Your task to perform on an android device: Set the phone to "Do not disturb". Image 0: 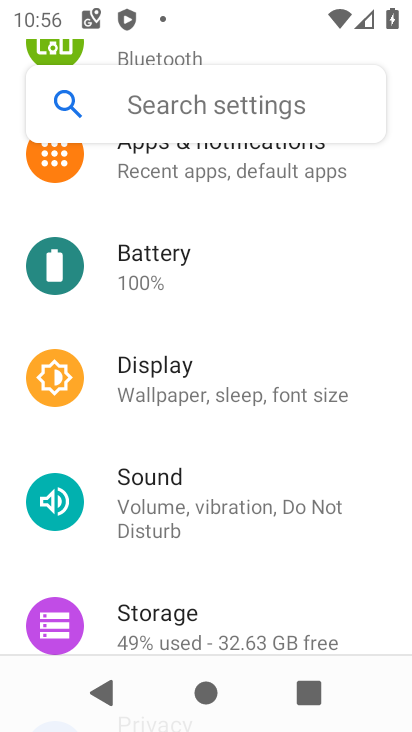
Step 0: click (231, 110)
Your task to perform on an android device: Set the phone to "Do not disturb". Image 1: 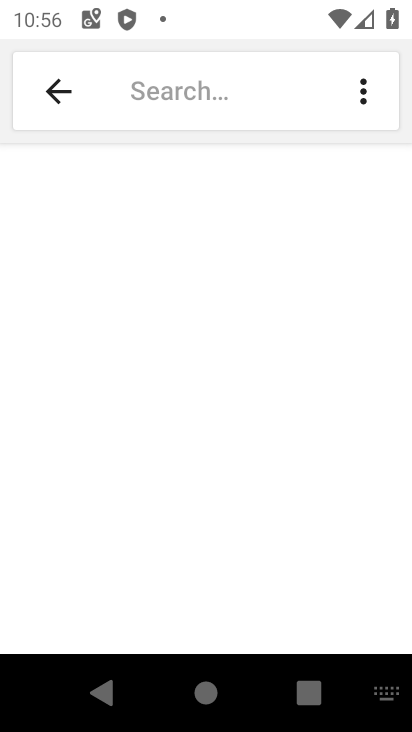
Step 1: click (71, 91)
Your task to perform on an android device: Set the phone to "Do not disturb". Image 2: 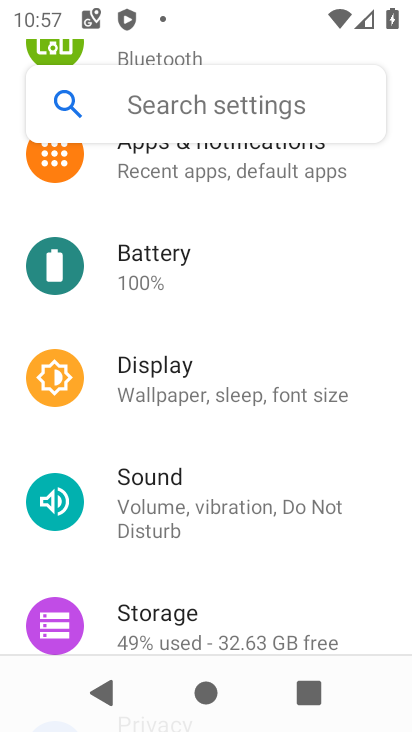
Step 2: drag from (236, 187) to (194, 614)
Your task to perform on an android device: Set the phone to "Do not disturb". Image 3: 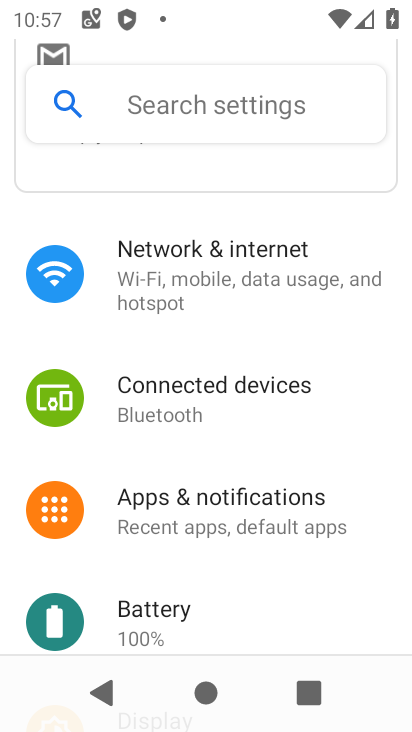
Step 3: drag from (234, 618) to (203, 344)
Your task to perform on an android device: Set the phone to "Do not disturb". Image 4: 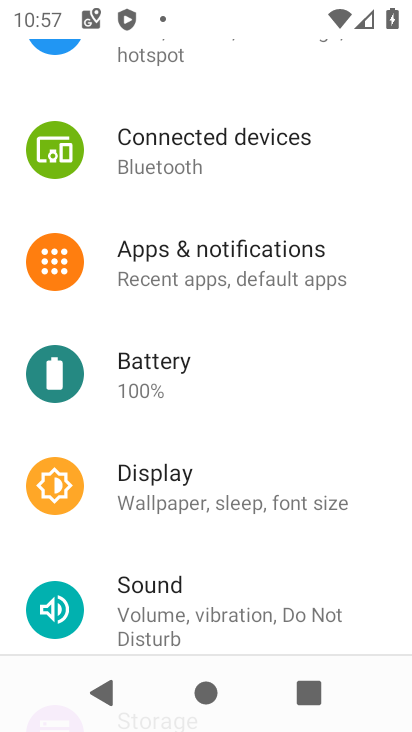
Step 4: drag from (197, 589) to (204, 297)
Your task to perform on an android device: Set the phone to "Do not disturb". Image 5: 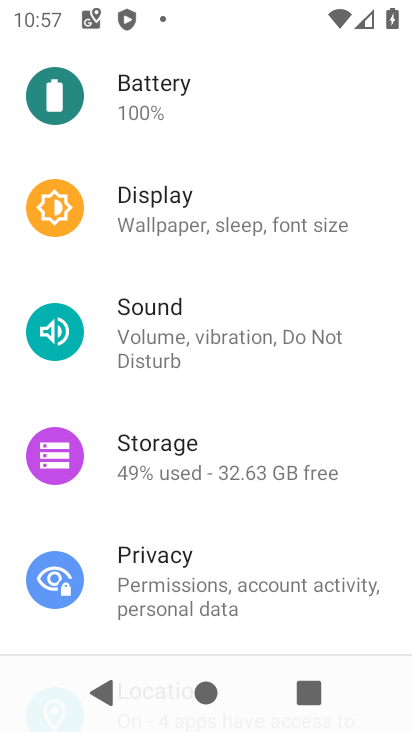
Step 5: click (207, 343)
Your task to perform on an android device: Set the phone to "Do not disturb". Image 6: 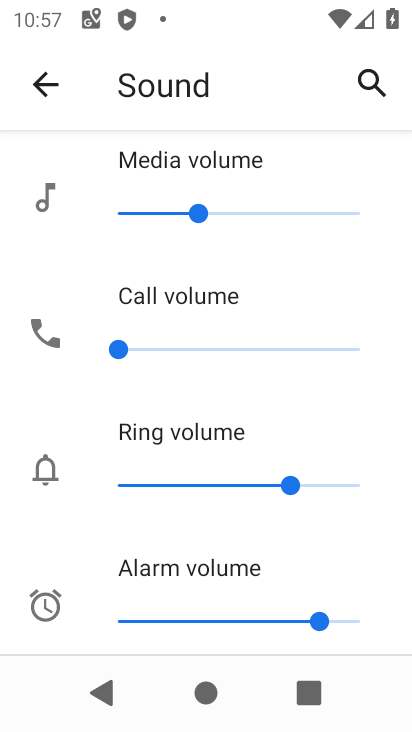
Step 6: drag from (187, 557) to (207, 202)
Your task to perform on an android device: Set the phone to "Do not disturb". Image 7: 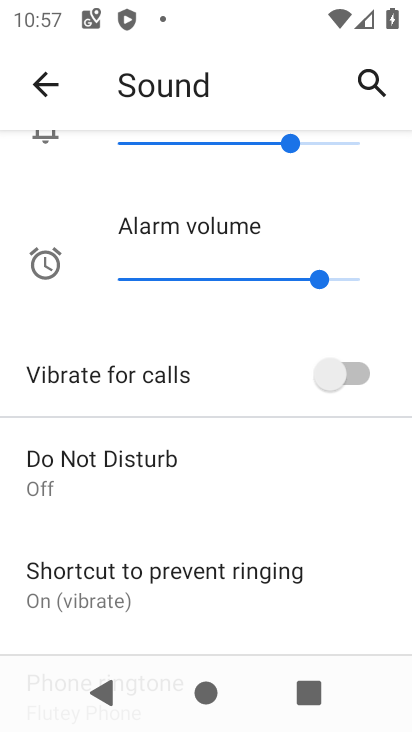
Step 7: click (179, 448)
Your task to perform on an android device: Set the phone to "Do not disturb". Image 8: 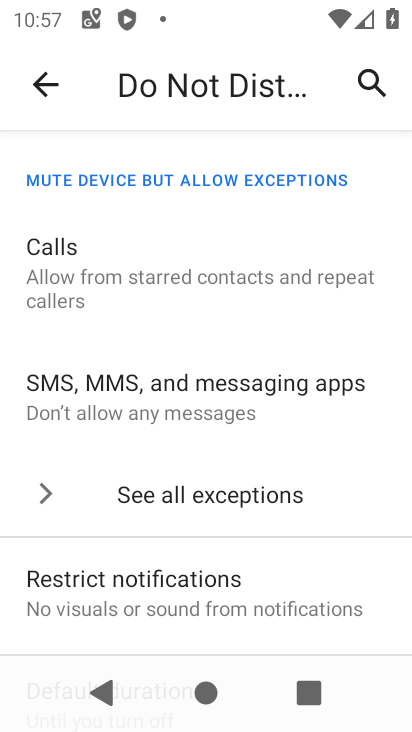
Step 8: drag from (255, 331) to (262, 10)
Your task to perform on an android device: Set the phone to "Do not disturb". Image 9: 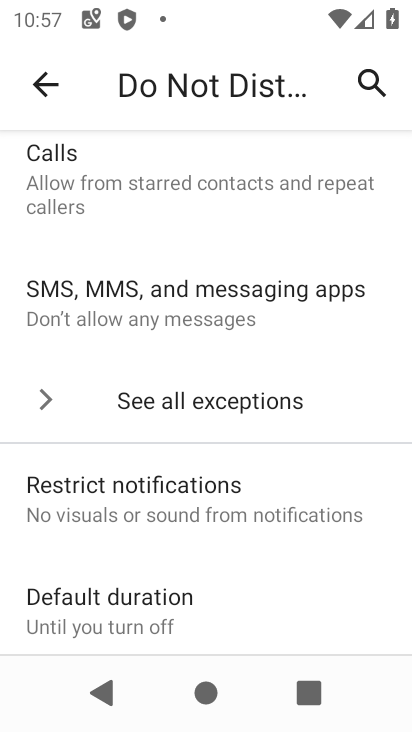
Step 9: drag from (169, 553) to (238, 181)
Your task to perform on an android device: Set the phone to "Do not disturb". Image 10: 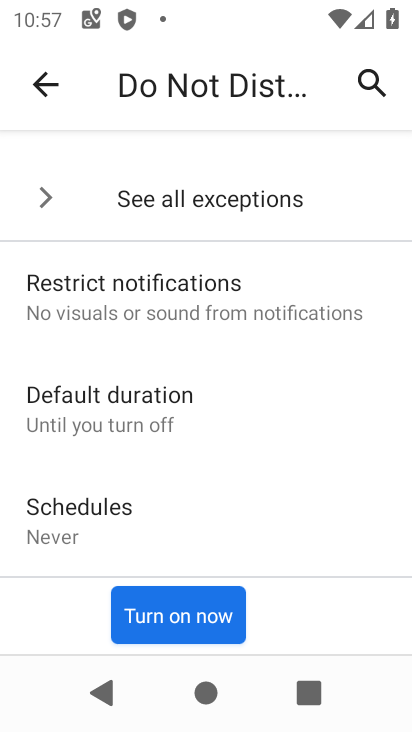
Step 10: click (168, 611)
Your task to perform on an android device: Set the phone to "Do not disturb". Image 11: 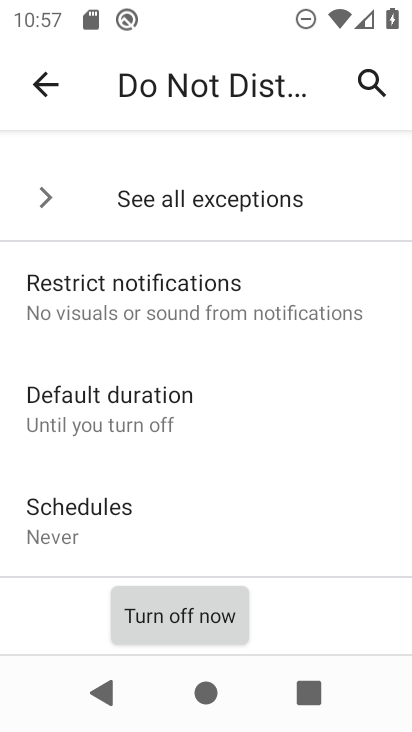
Step 11: task complete